Your task to perform on an android device: install app "DuckDuckGo Privacy Browser" Image 0: 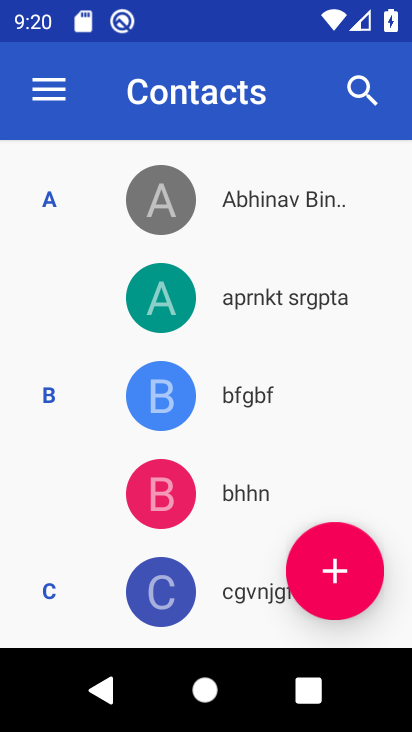
Step 0: press home button
Your task to perform on an android device: install app "DuckDuckGo Privacy Browser" Image 1: 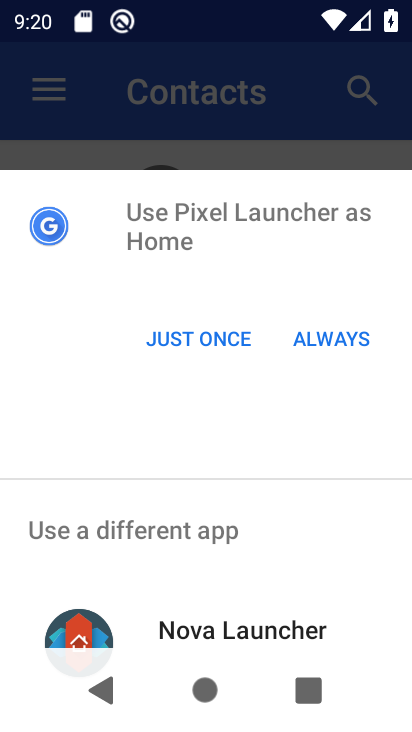
Step 1: press home button
Your task to perform on an android device: install app "DuckDuckGo Privacy Browser" Image 2: 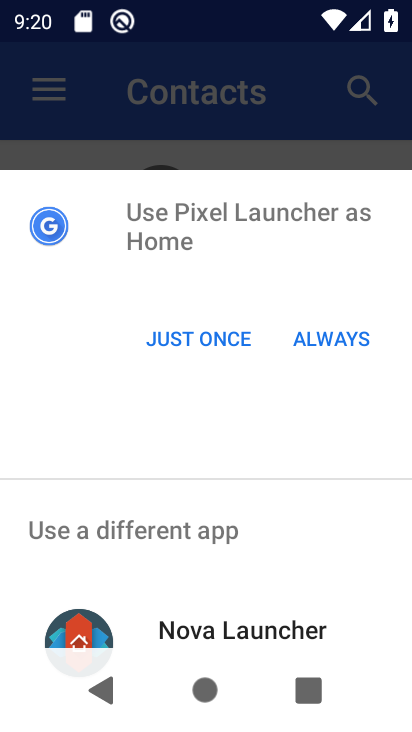
Step 2: press home button
Your task to perform on an android device: install app "DuckDuckGo Privacy Browser" Image 3: 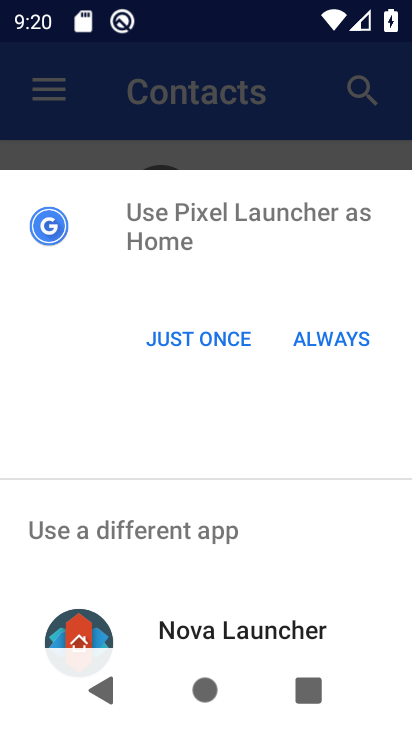
Step 3: click (333, 342)
Your task to perform on an android device: install app "DuckDuckGo Privacy Browser" Image 4: 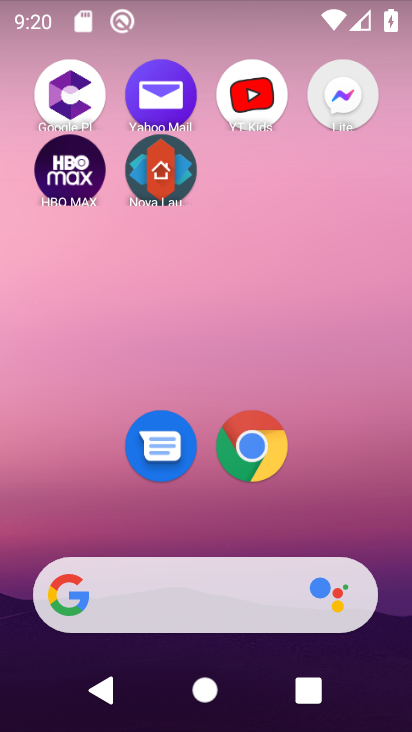
Step 4: drag from (201, 535) to (263, 81)
Your task to perform on an android device: install app "DuckDuckGo Privacy Browser" Image 5: 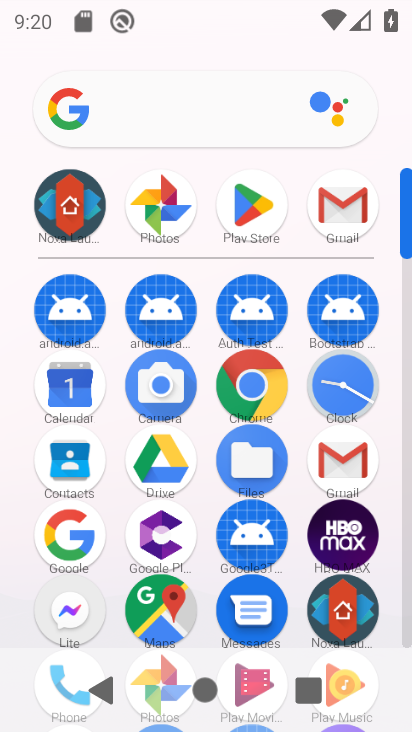
Step 5: click (251, 177)
Your task to perform on an android device: install app "DuckDuckGo Privacy Browser" Image 6: 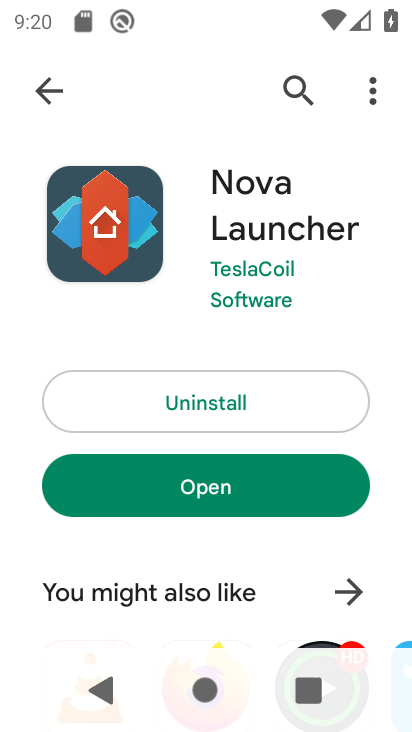
Step 6: click (302, 81)
Your task to perform on an android device: install app "DuckDuckGo Privacy Browser" Image 7: 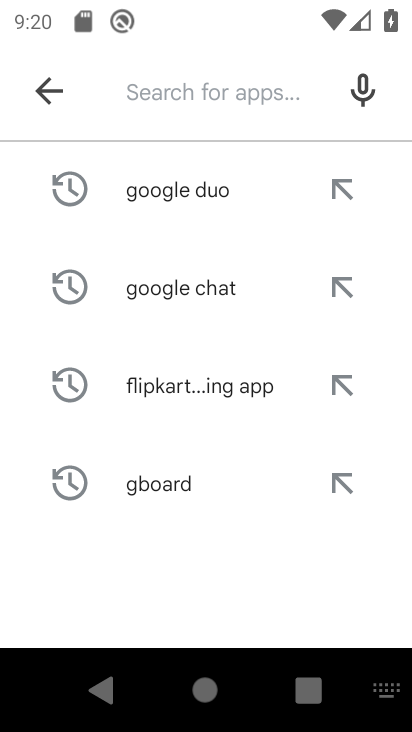
Step 7: type "DuckDuckGo Privacy Browser"
Your task to perform on an android device: install app "DuckDuckGo Privacy Browser" Image 8: 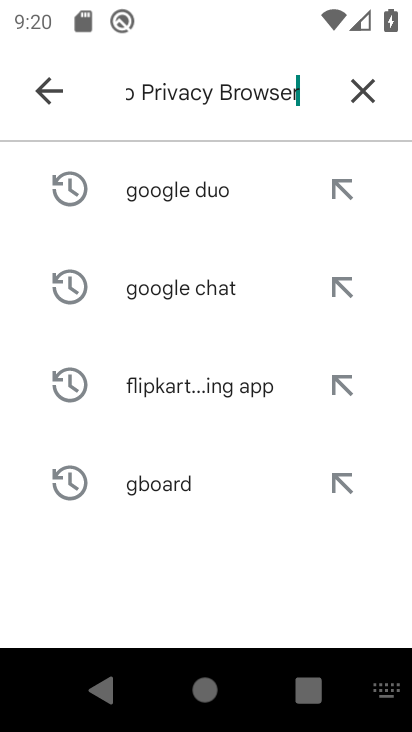
Step 8: type ""
Your task to perform on an android device: install app "DuckDuckGo Privacy Browser" Image 9: 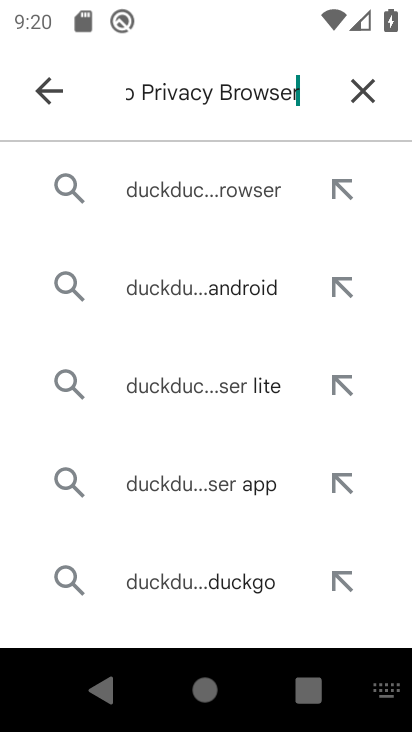
Step 9: click (189, 190)
Your task to perform on an android device: install app "DuckDuckGo Privacy Browser" Image 10: 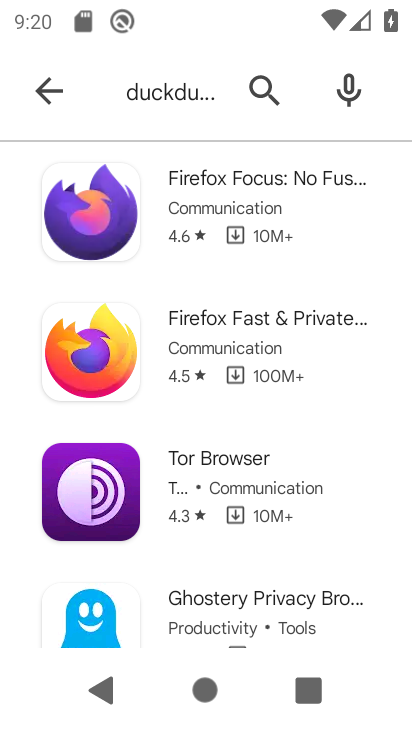
Step 10: click (244, 84)
Your task to perform on an android device: install app "DuckDuckGo Privacy Browser" Image 11: 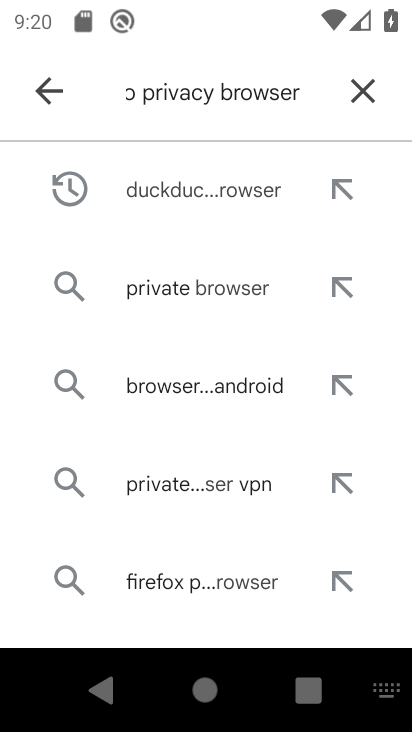
Step 11: click (232, 183)
Your task to perform on an android device: install app "DuckDuckGo Privacy Browser" Image 12: 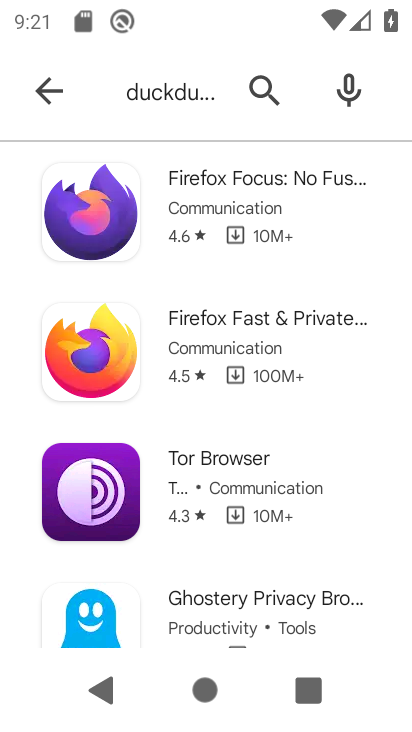
Step 12: task complete